Your task to perform on an android device: Open accessibility settings Image 0: 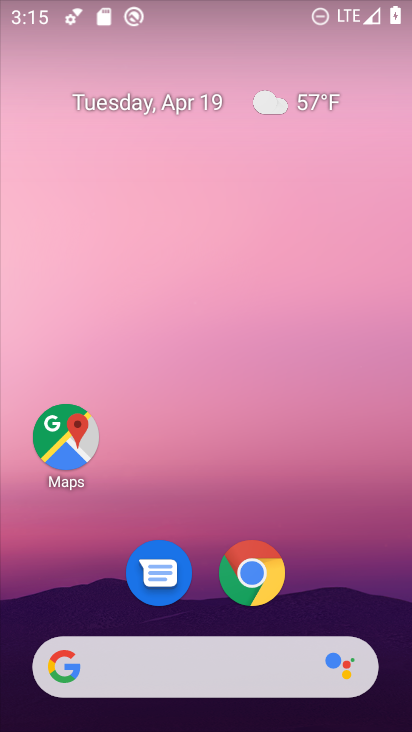
Step 0: drag from (391, 619) to (342, 12)
Your task to perform on an android device: Open accessibility settings Image 1: 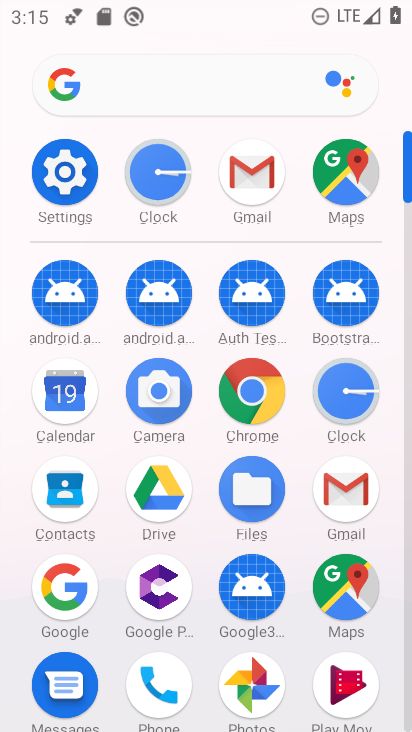
Step 1: click (66, 179)
Your task to perform on an android device: Open accessibility settings Image 2: 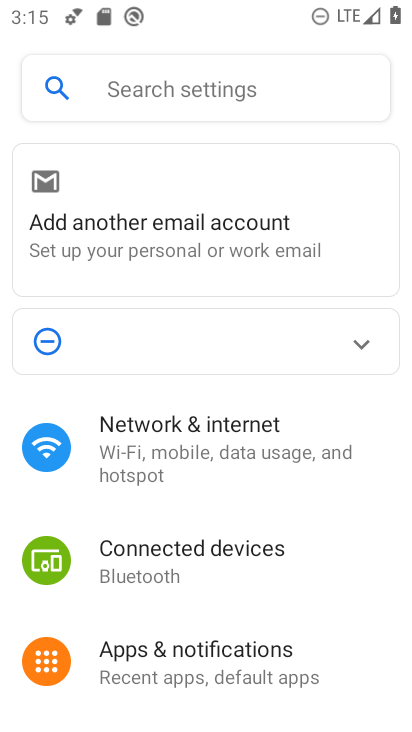
Step 2: drag from (374, 598) to (394, 99)
Your task to perform on an android device: Open accessibility settings Image 3: 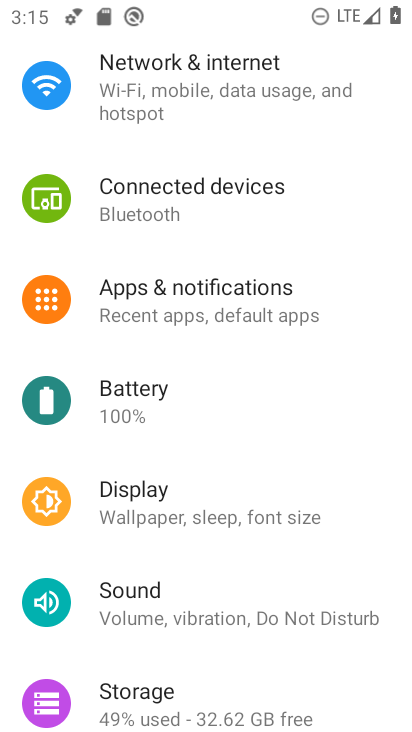
Step 3: drag from (260, 547) to (277, 188)
Your task to perform on an android device: Open accessibility settings Image 4: 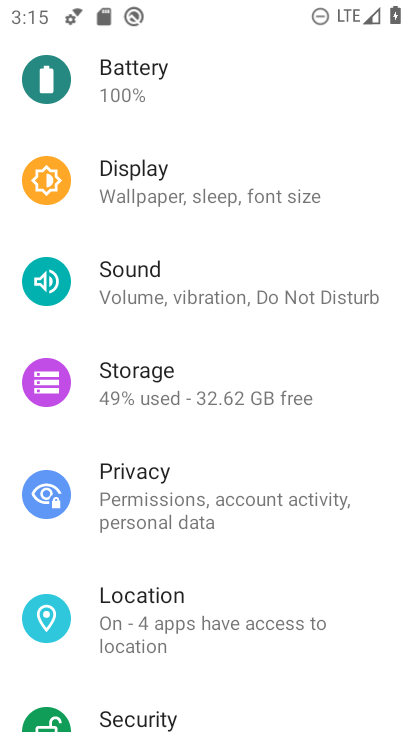
Step 4: drag from (234, 582) to (235, 244)
Your task to perform on an android device: Open accessibility settings Image 5: 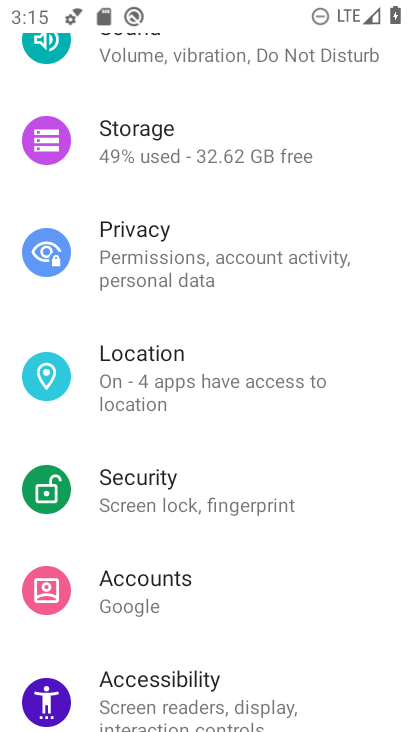
Step 5: click (156, 684)
Your task to perform on an android device: Open accessibility settings Image 6: 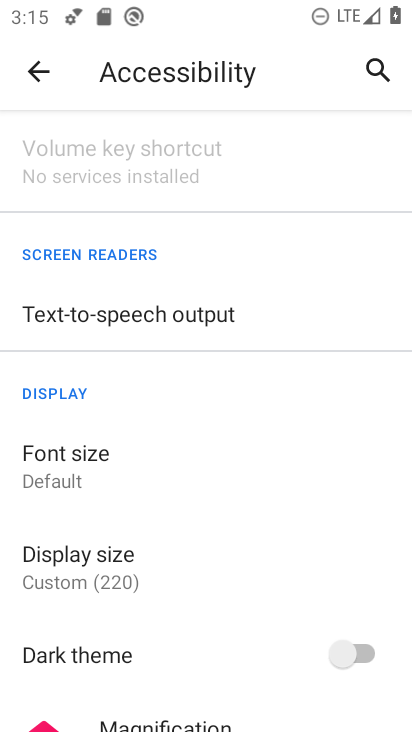
Step 6: task complete